Your task to perform on an android device: Open Wikipedia Image 0: 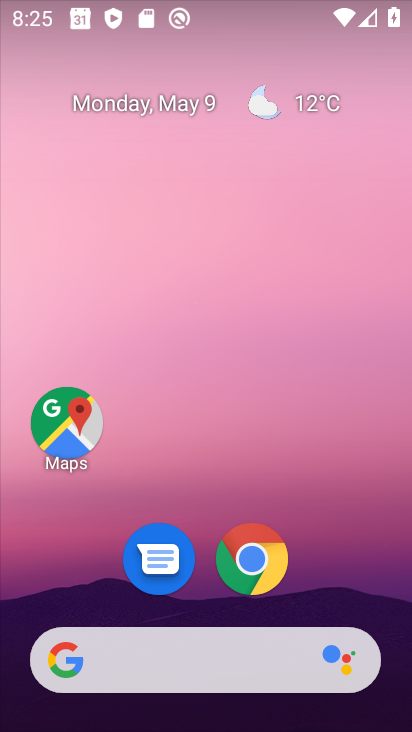
Step 0: click (255, 560)
Your task to perform on an android device: Open Wikipedia Image 1: 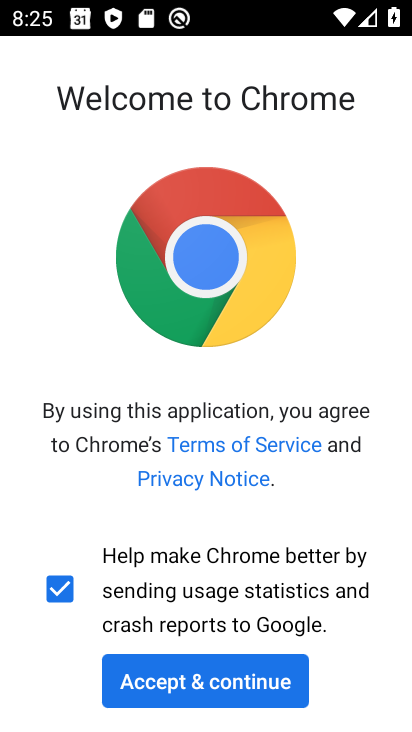
Step 1: click (175, 687)
Your task to perform on an android device: Open Wikipedia Image 2: 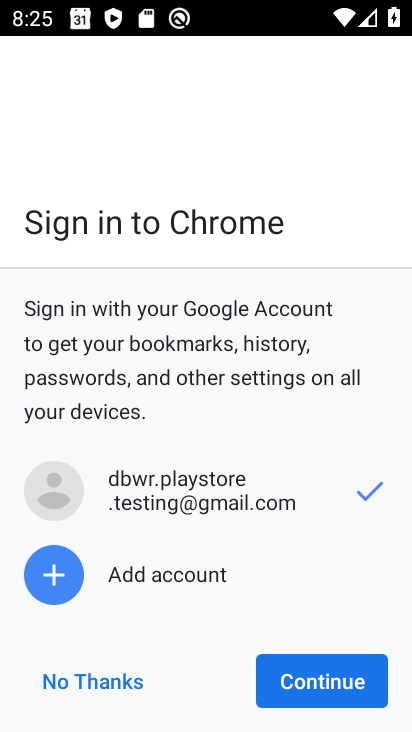
Step 2: click (301, 681)
Your task to perform on an android device: Open Wikipedia Image 3: 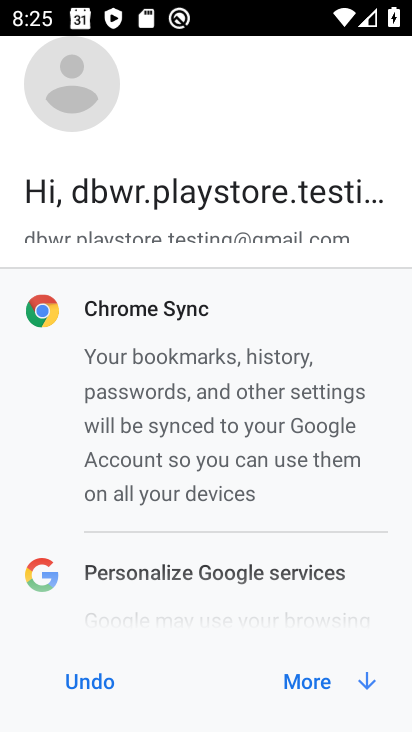
Step 3: click (314, 676)
Your task to perform on an android device: Open Wikipedia Image 4: 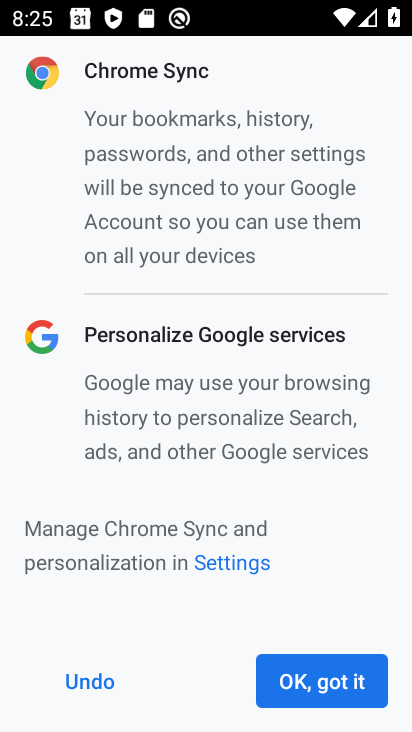
Step 4: click (317, 677)
Your task to perform on an android device: Open Wikipedia Image 5: 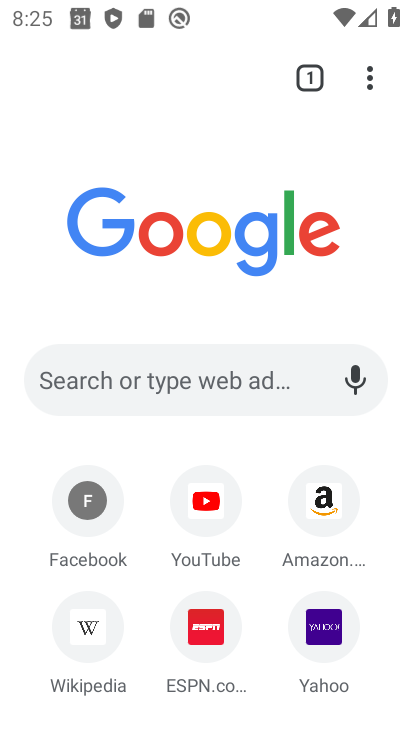
Step 5: click (92, 647)
Your task to perform on an android device: Open Wikipedia Image 6: 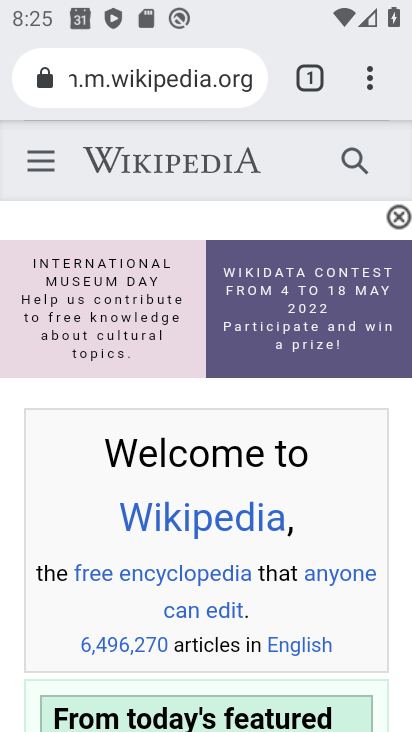
Step 6: task complete